Your task to perform on an android device: toggle location history Image 0: 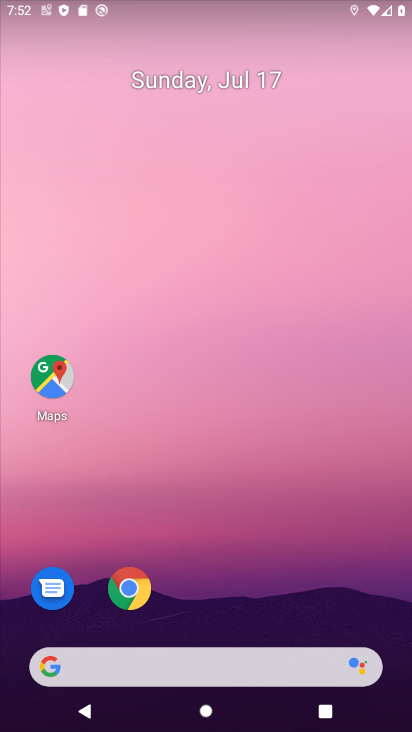
Step 0: drag from (224, 676) to (230, 207)
Your task to perform on an android device: toggle location history Image 1: 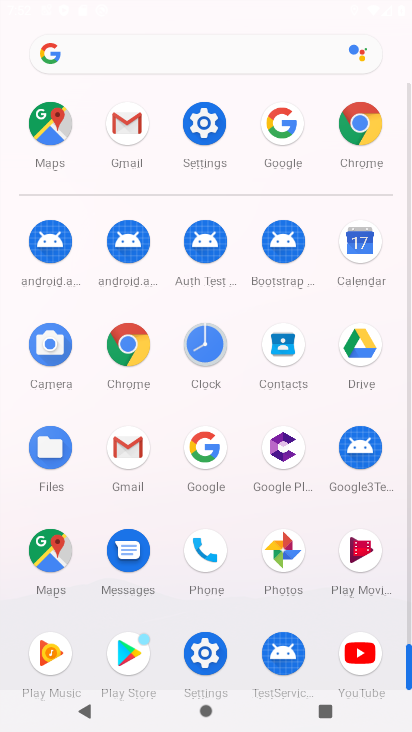
Step 1: click (203, 143)
Your task to perform on an android device: toggle location history Image 2: 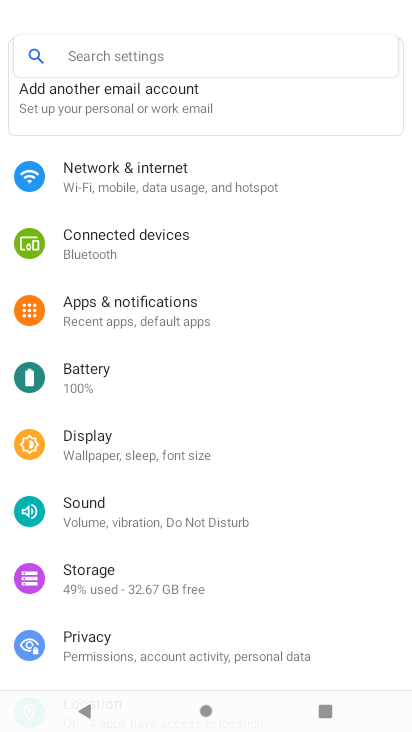
Step 2: drag from (121, 558) to (125, 455)
Your task to perform on an android device: toggle location history Image 3: 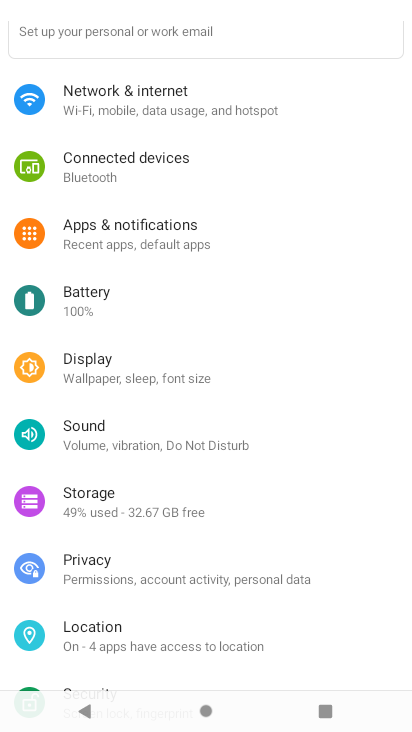
Step 3: click (110, 631)
Your task to perform on an android device: toggle location history Image 4: 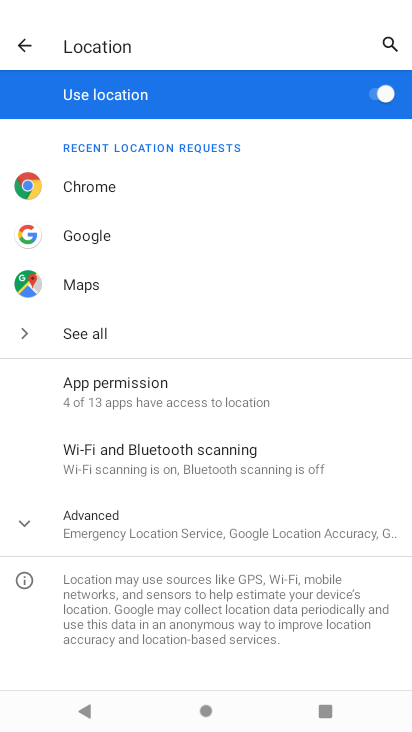
Step 4: click (61, 537)
Your task to perform on an android device: toggle location history Image 5: 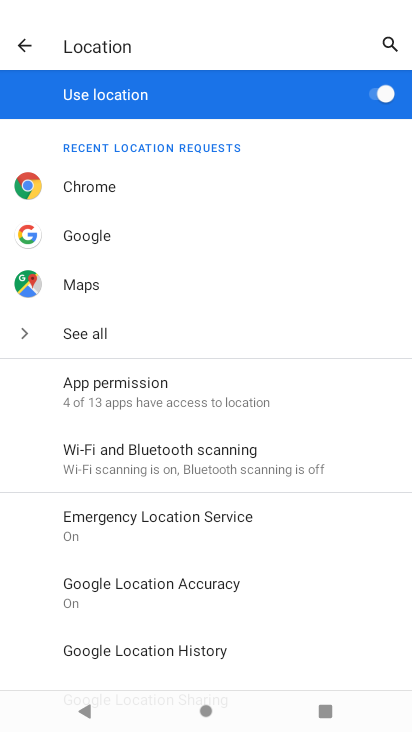
Step 5: click (214, 651)
Your task to perform on an android device: toggle location history Image 6: 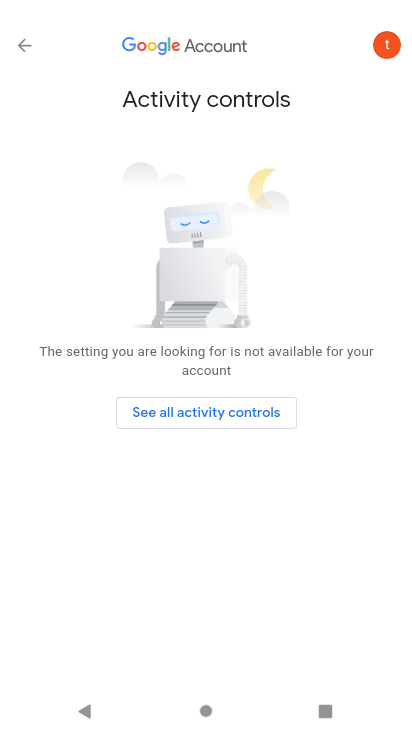
Step 6: task complete